Your task to perform on an android device: see sites visited before in the chrome app Image 0: 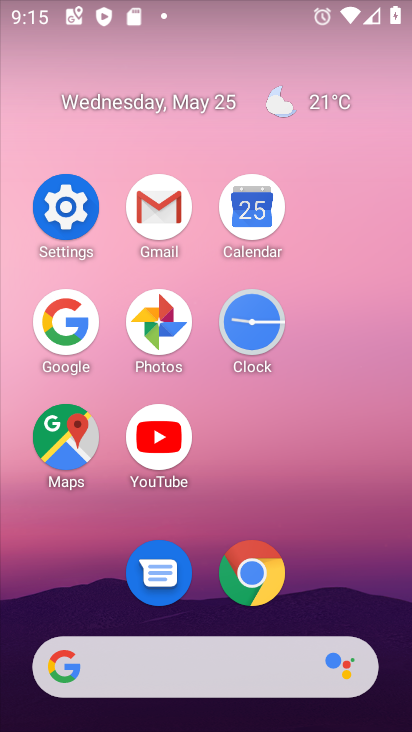
Step 0: click (240, 569)
Your task to perform on an android device: see sites visited before in the chrome app Image 1: 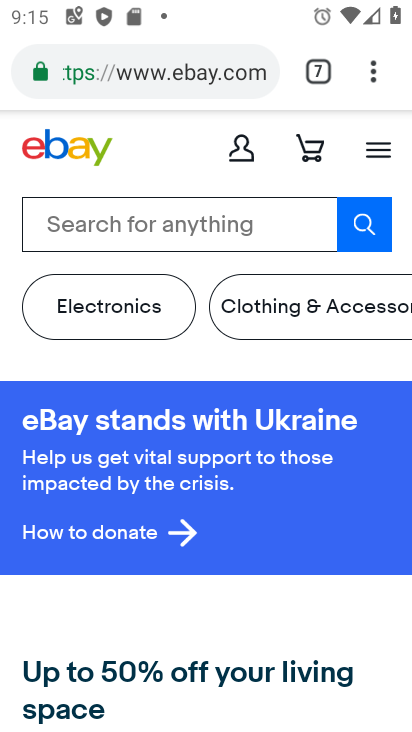
Step 1: click (375, 81)
Your task to perform on an android device: see sites visited before in the chrome app Image 2: 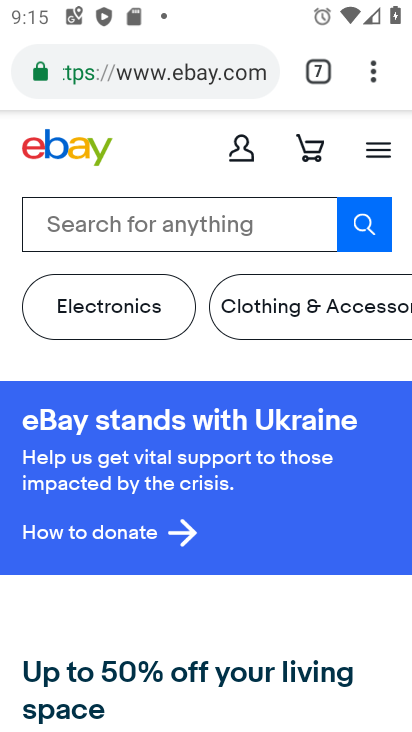
Step 2: click (359, 91)
Your task to perform on an android device: see sites visited before in the chrome app Image 3: 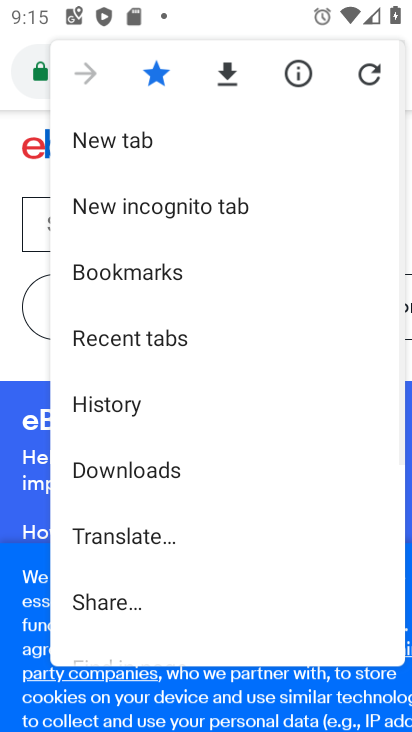
Step 3: click (156, 351)
Your task to perform on an android device: see sites visited before in the chrome app Image 4: 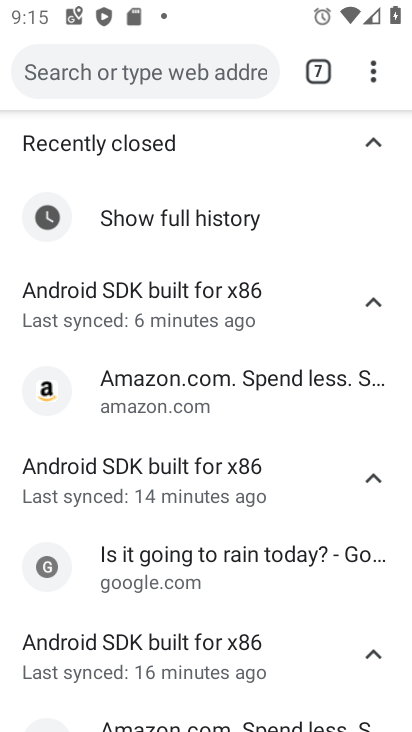
Step 4: task complete